Your task to perform on an android device: Go to eBay Image 0: 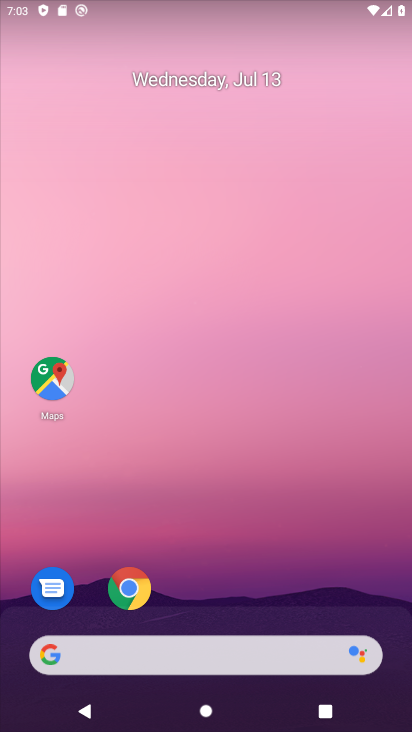
Step 0: click (122, 589)
Your task to perform on an android device: Go to eBay Image 1: 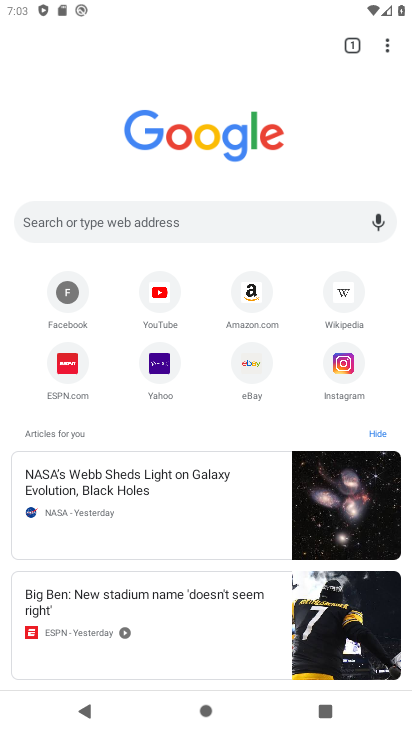
Step 1: click (249, 368)
Your task to perform on an android device: Go to eBay Image 2: 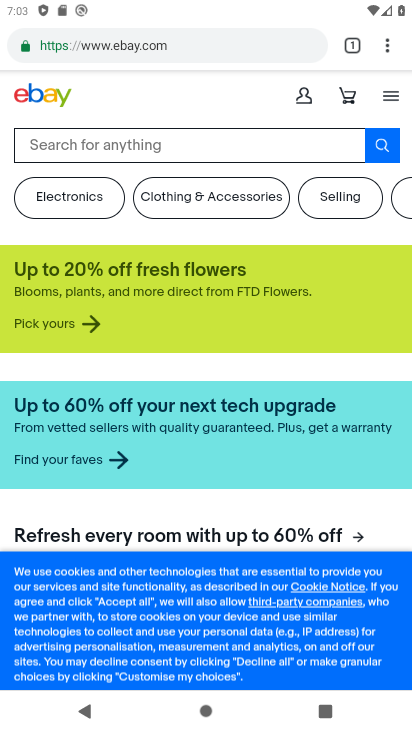
Step 2: task complete